Your task to perform on an android device: Go to privacy settings Image 0: 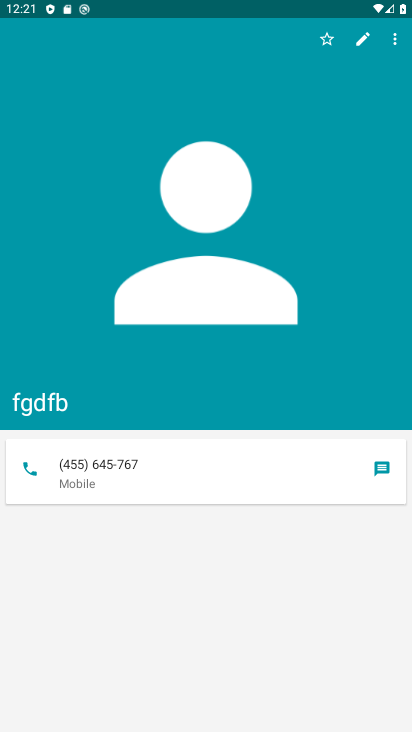
Step 0: press home button
Your task to perform on an android device: Go to privacy settings Image 1: 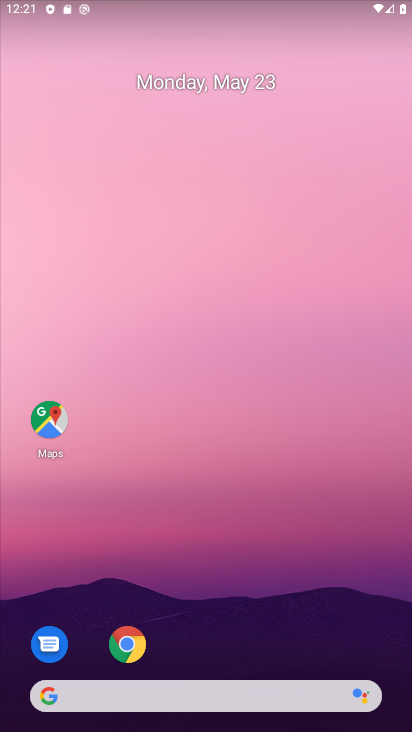
Step 1: drag from (264, 637) to (322, 40)
Your task to perform on an android device: Go to privacy settings Image 2: 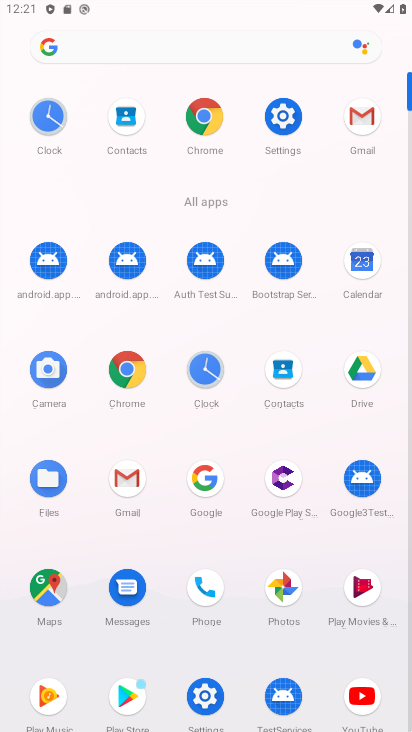
Step 2: click (285, 125)
Your task to perform on an android device: Go to privacy settings Image 3: 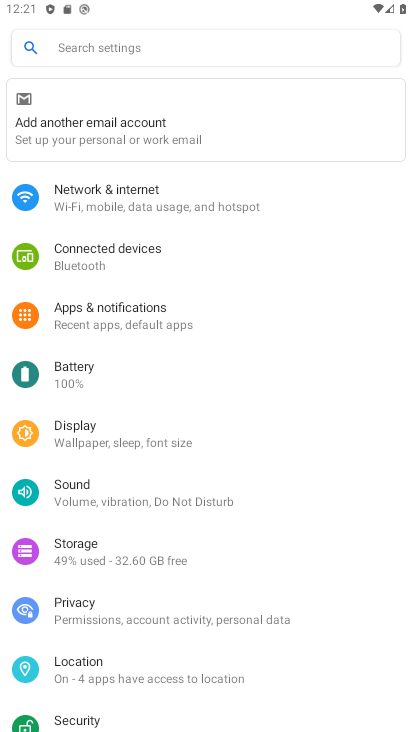
Step 3: click (169, 613)
Your task to perform on an android device: Go to privacy settings Image 4: 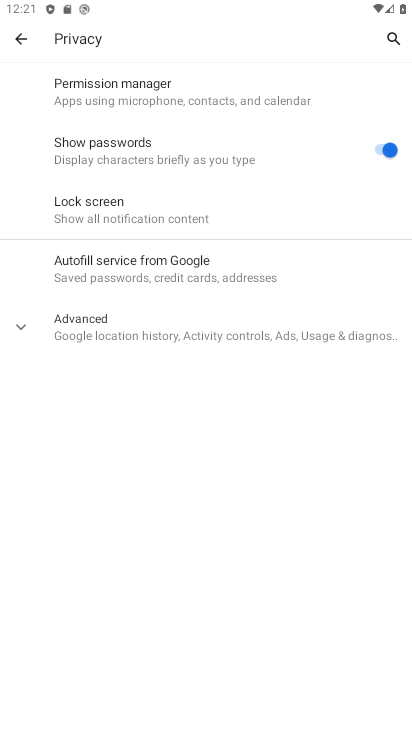
Step 4: task complete